Your task to perform on an android device: toggle data saver in the chrome app Image 0: 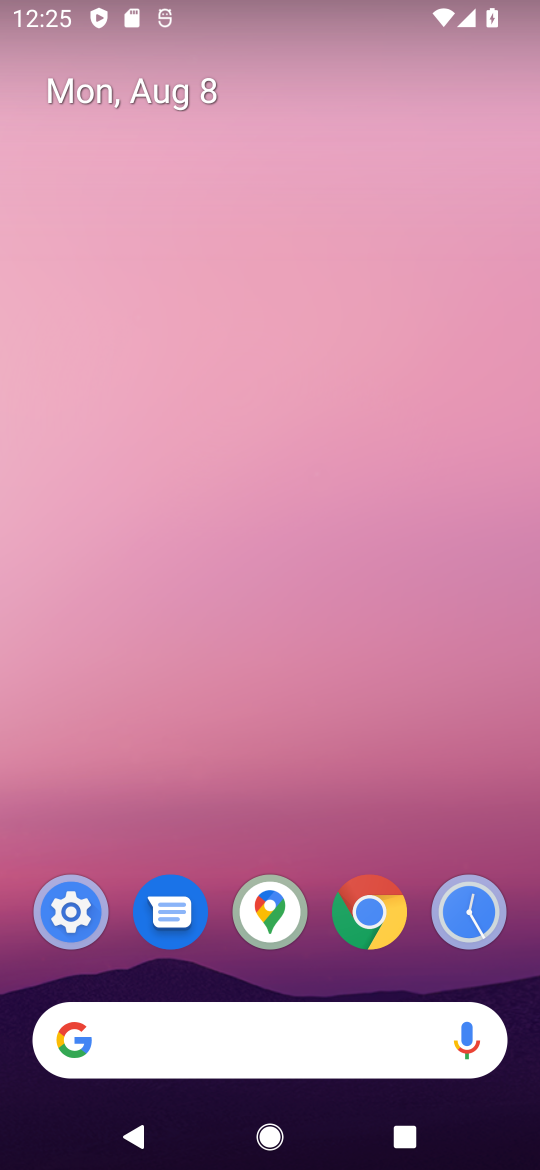
Step 0: click (368, 921)
Your task to perform on an android device: toggle data saver in the chrome app Image 1: 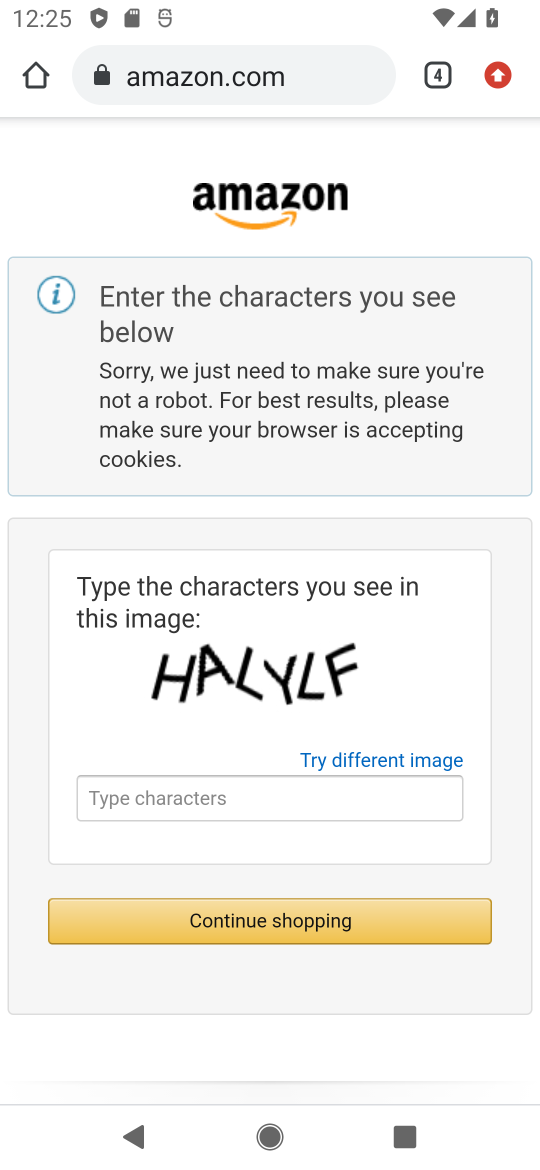
Step 1: drag from (499, 72) to (280, 1005)
Your task to perform on an android device: toggle data saver in the chrome app Image 2: 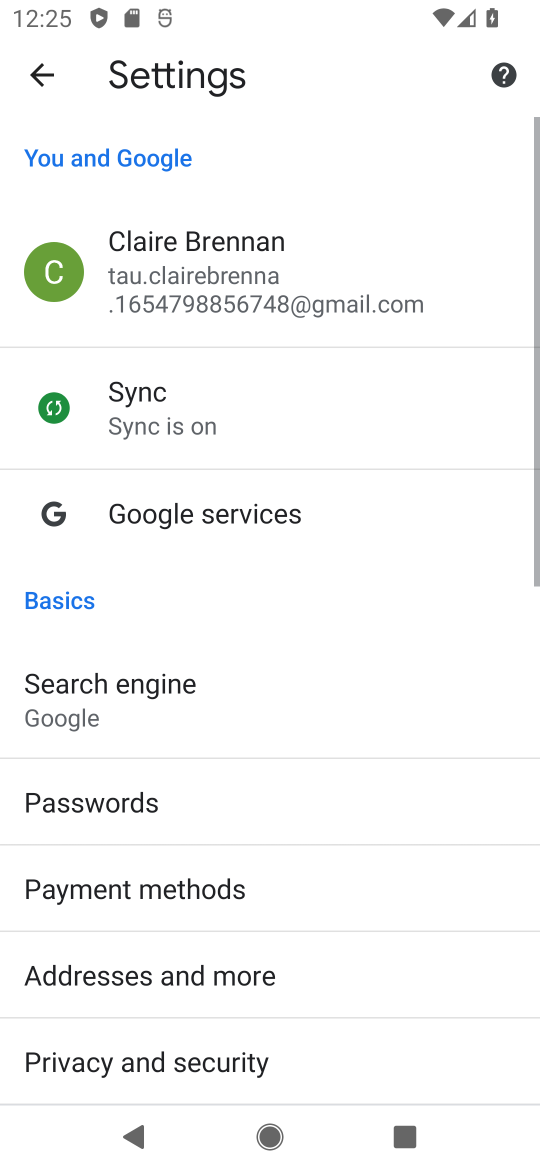
Step 2: drag from (190, 1008) to (281, 156)
Your task to perform on an android device: toggle data saver in the chrome app Image 3: 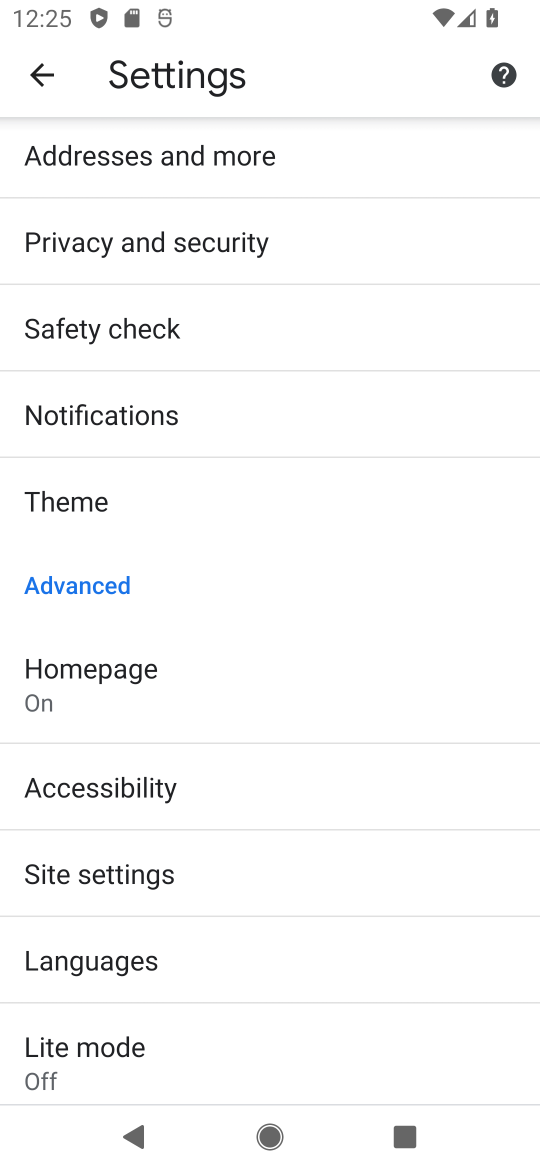
Step 3: click (96, 1038)
Your task to perform on an android device: toggle data saver in the chrome app Image 4: 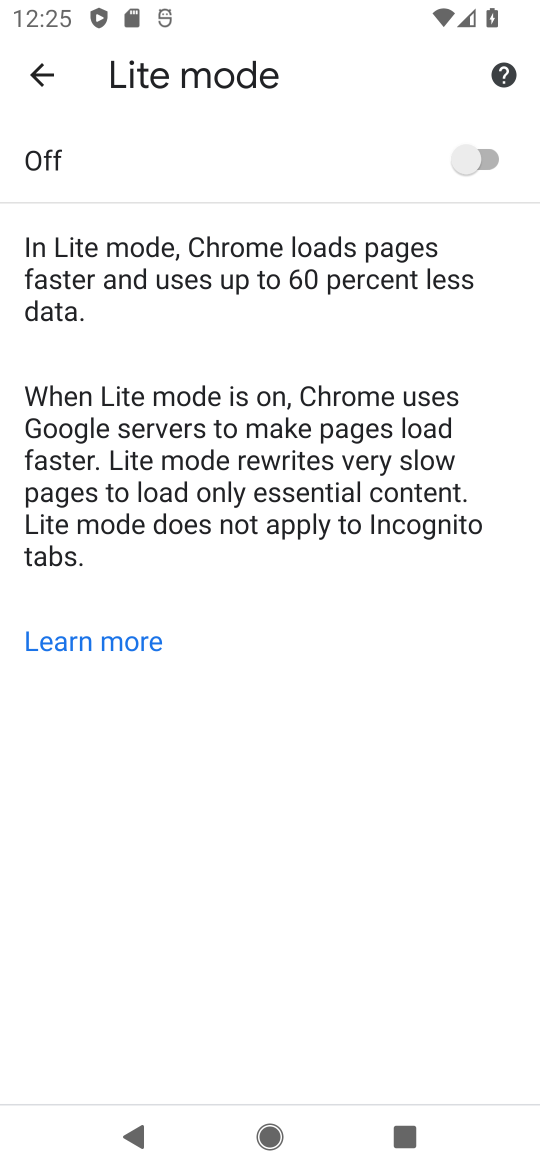
Step 4: click (472, 162)
Your task to perform on an android device: toggle data saver in the chrome app Image 5: 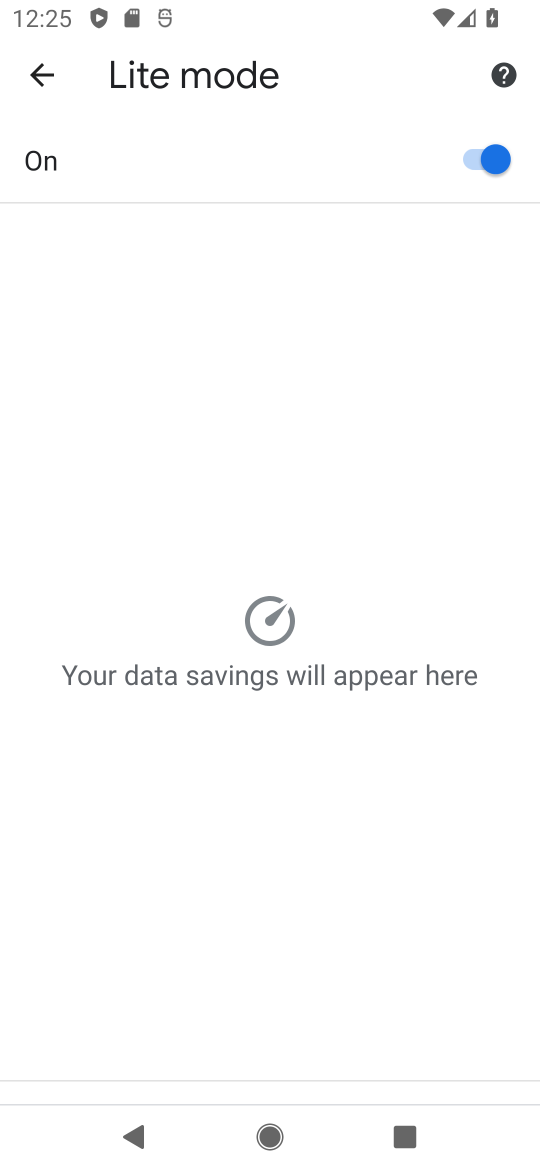
Step 5: task complete